Your task to perform on an android device: open a new tab in the chrome app Image 0: 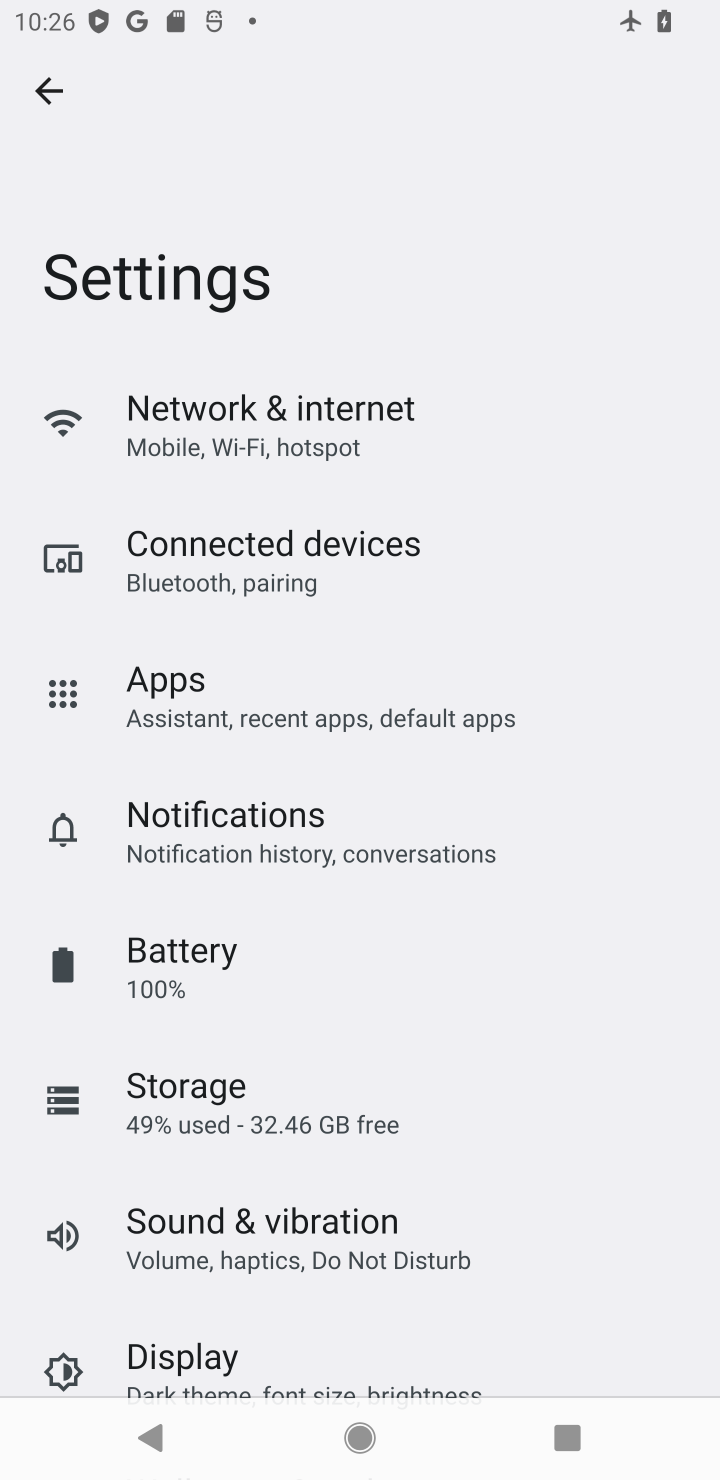
Step 0: press home button
Your task to perform on an android device: open a new tab in the chrome app Image 1: 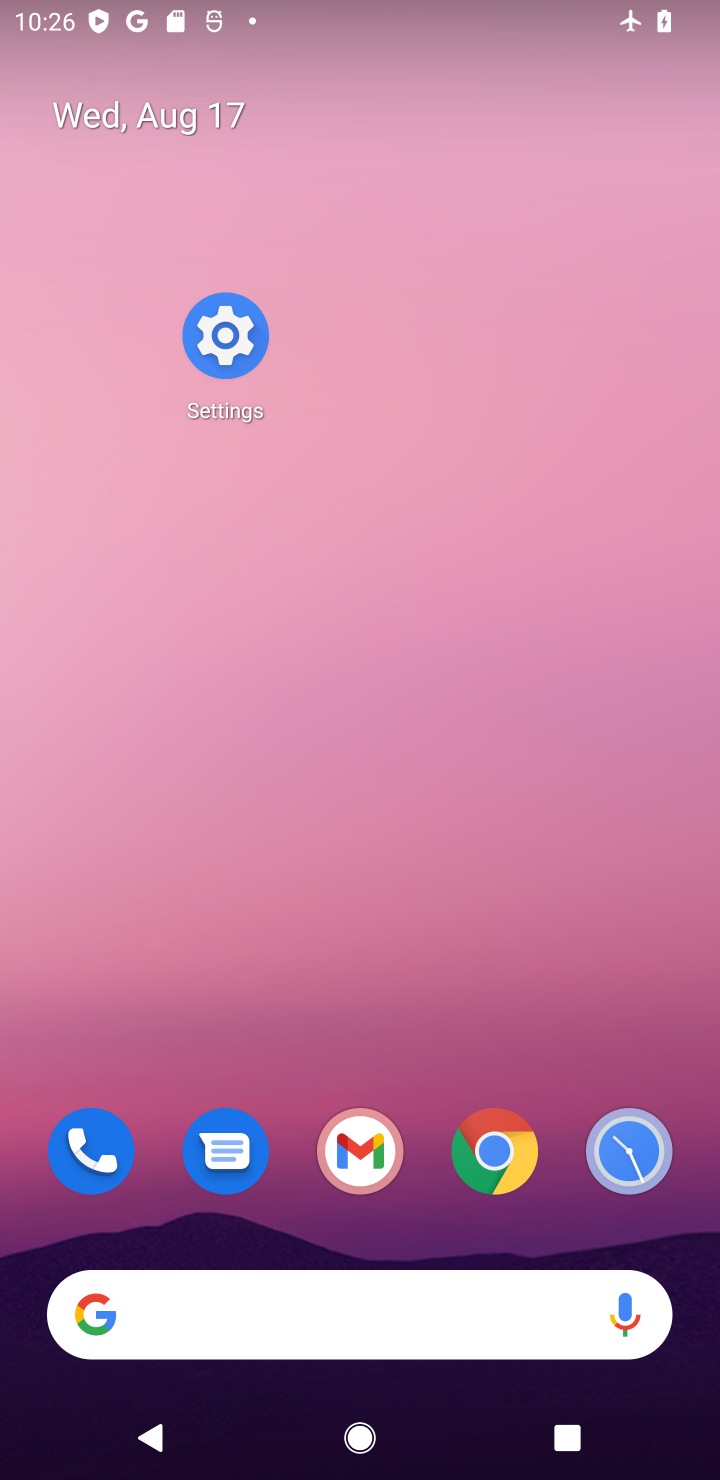
Step 1: click (495, 1150)
Your task to perform on an android device: open a new tab in the chrome app Image 2: 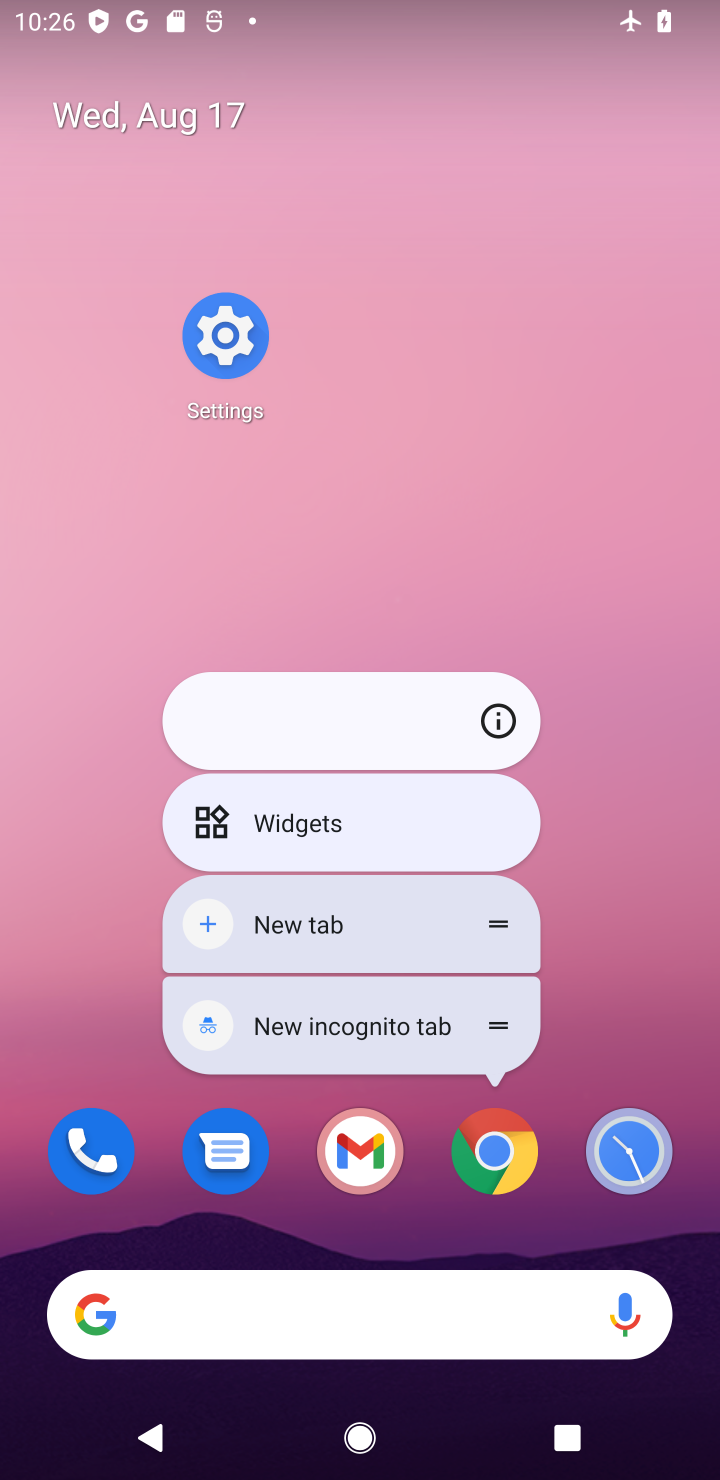
Step 2: click (495, 1161)
Your task to perform on an android device: open a new tab in the chrome app Image 3: 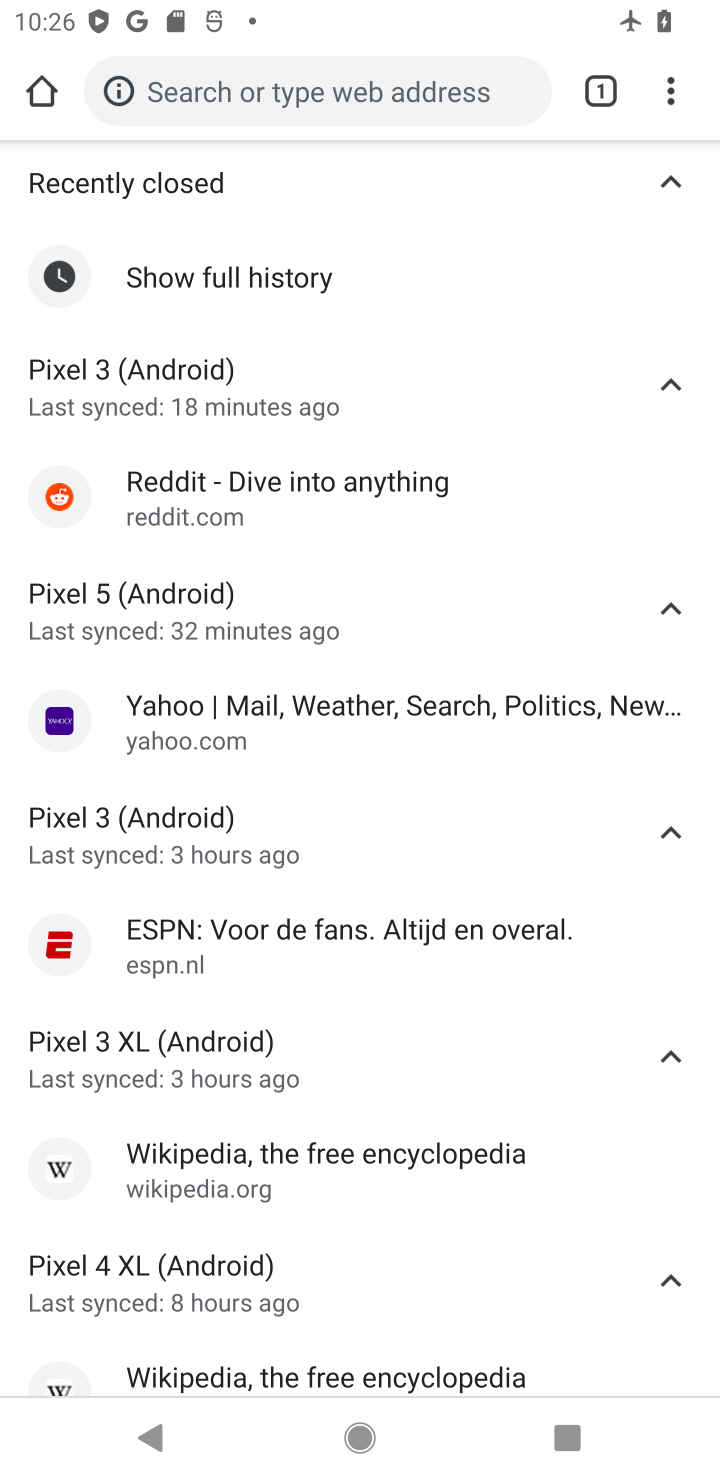
Step 3: click (597, 102)
Your task to perform on an android device: open a new tab in the chrome app Image 4: 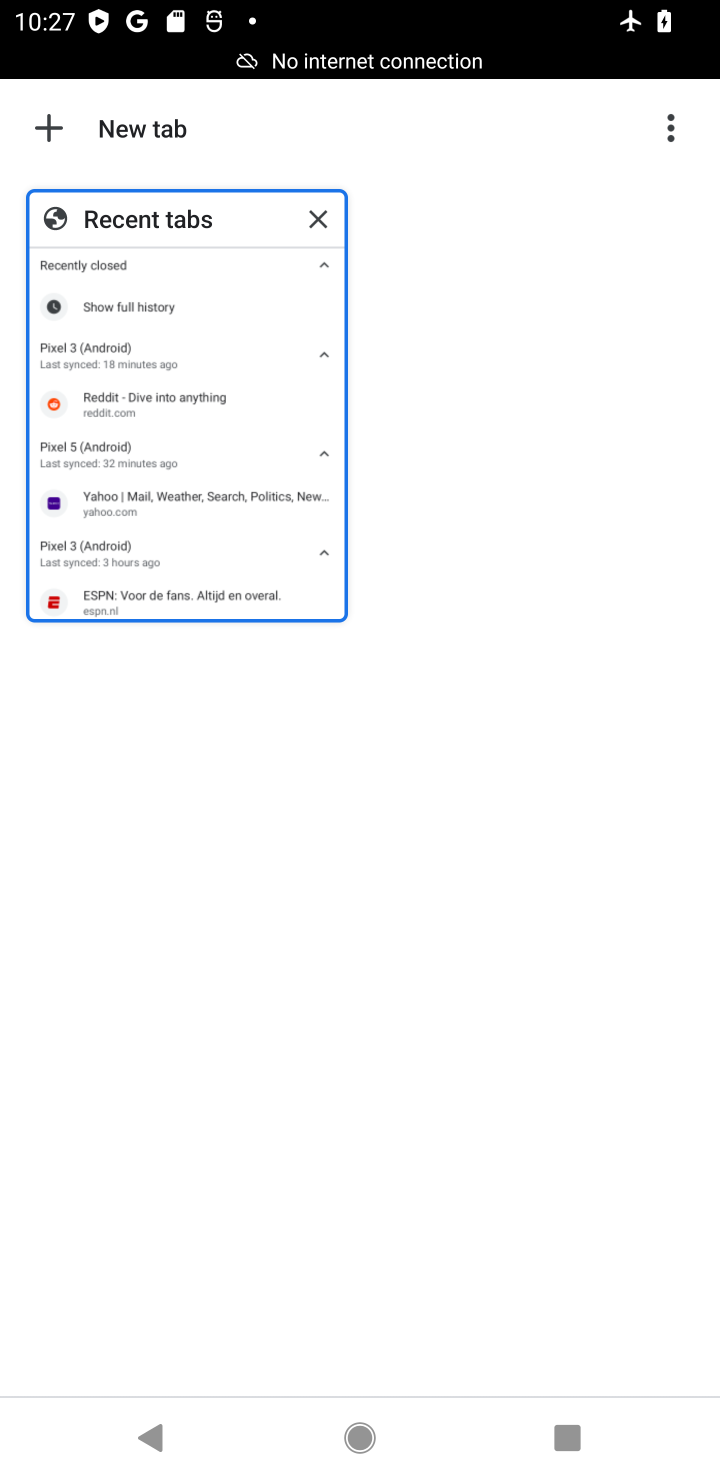
Step 4: click (48, 123)
Your task to perform on an android device: open a new tab in the chrome app Image 5: 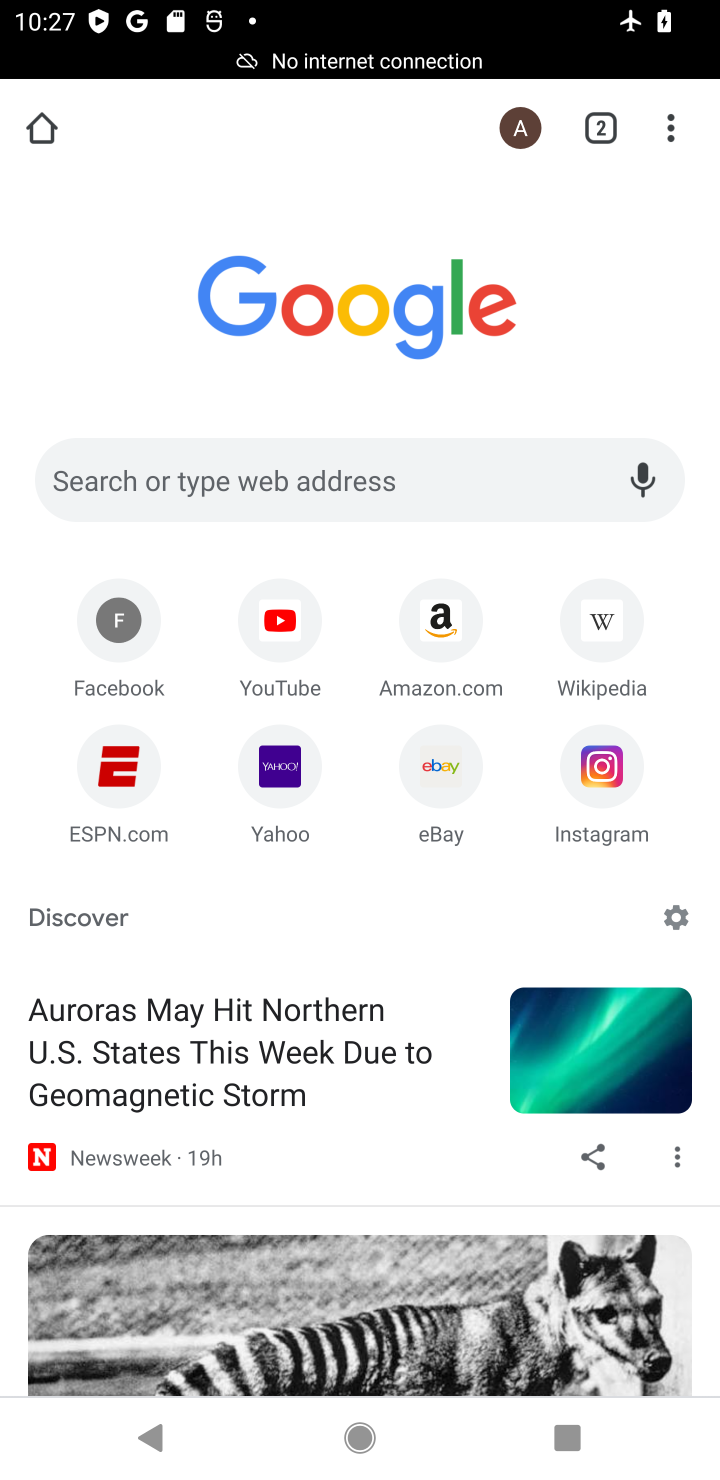
Step 5: task complete